Your task to perform on an android device: Open Chrome and go to settings Image 0: 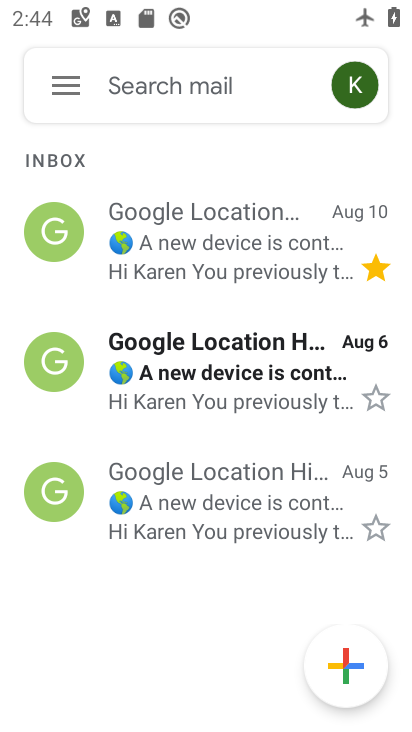
Step 0: press home button
Your task to perform on an android device: Open Chrome and go to settings Image 1: 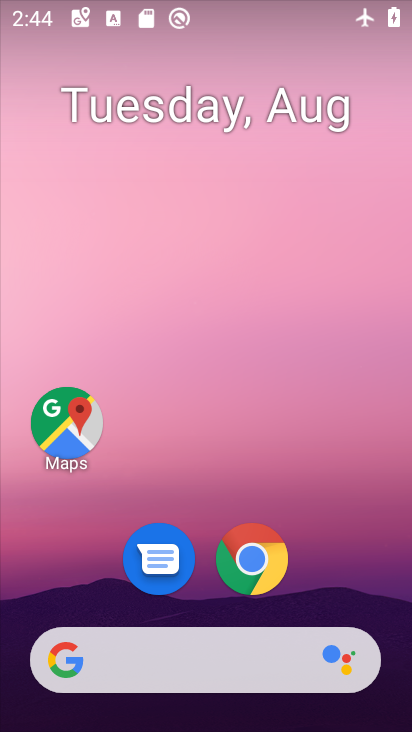
Step 1: click (232, 570)
Your task to perform on an android device: Open Chrome and go to settings Image 2: 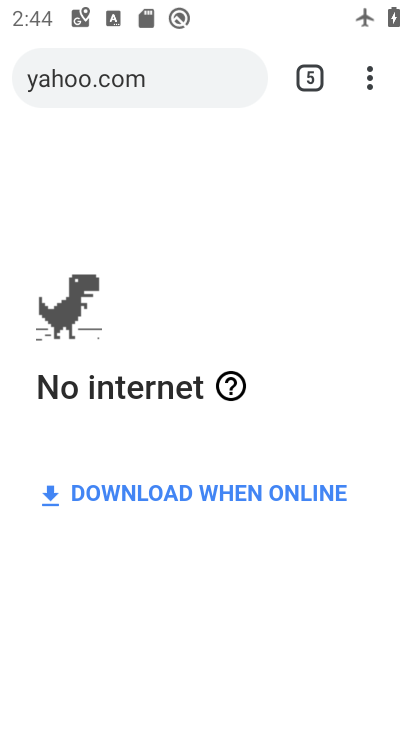
Step 2: click (372, 88)
Your task to perform on an android device: Open Chrome and go to settings Image 3: 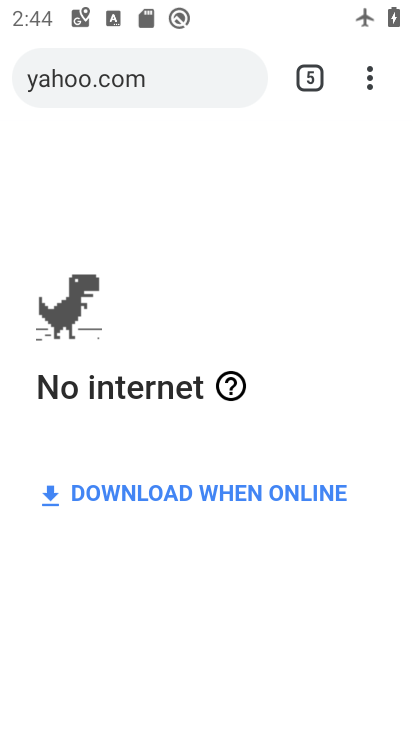
Step 3: click (372, 88)
Your task to perform on an android device: Open Chrome and go to settings Image 4: 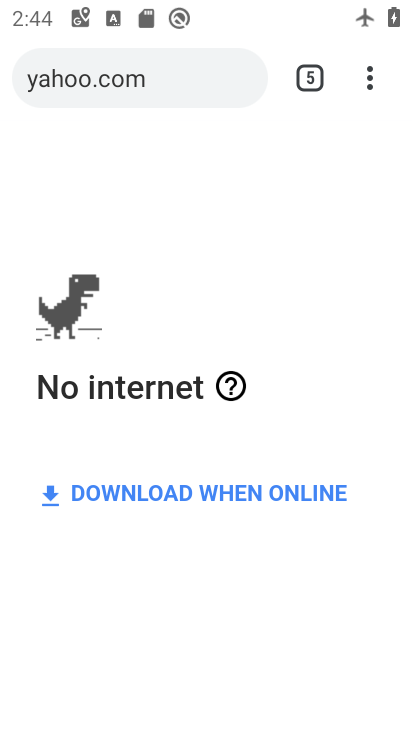
Step 4: task complete